Your task to perform on an android device: open device folders in google photos Image 0: 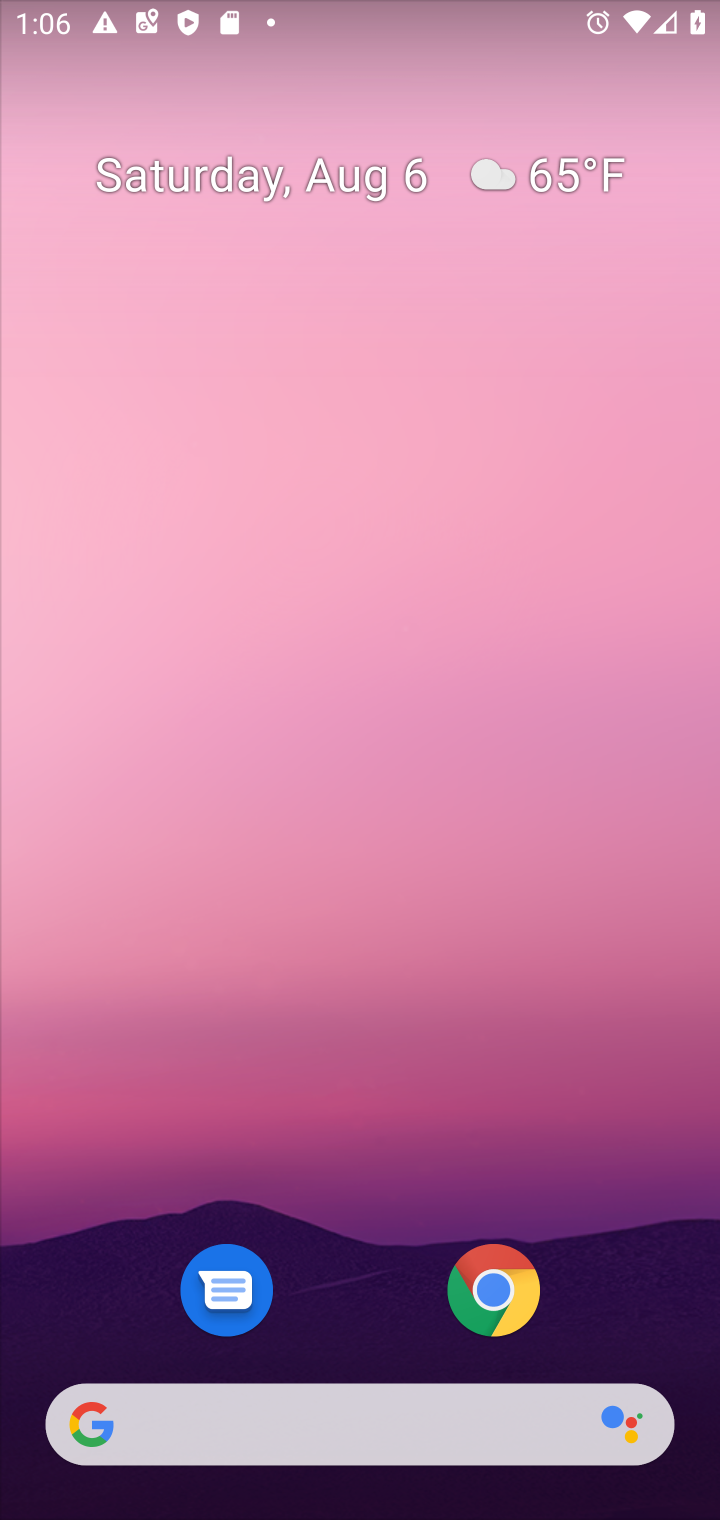
Step 0: press home button
Your task to perform on an android device: open device folders in google photos Image 1: 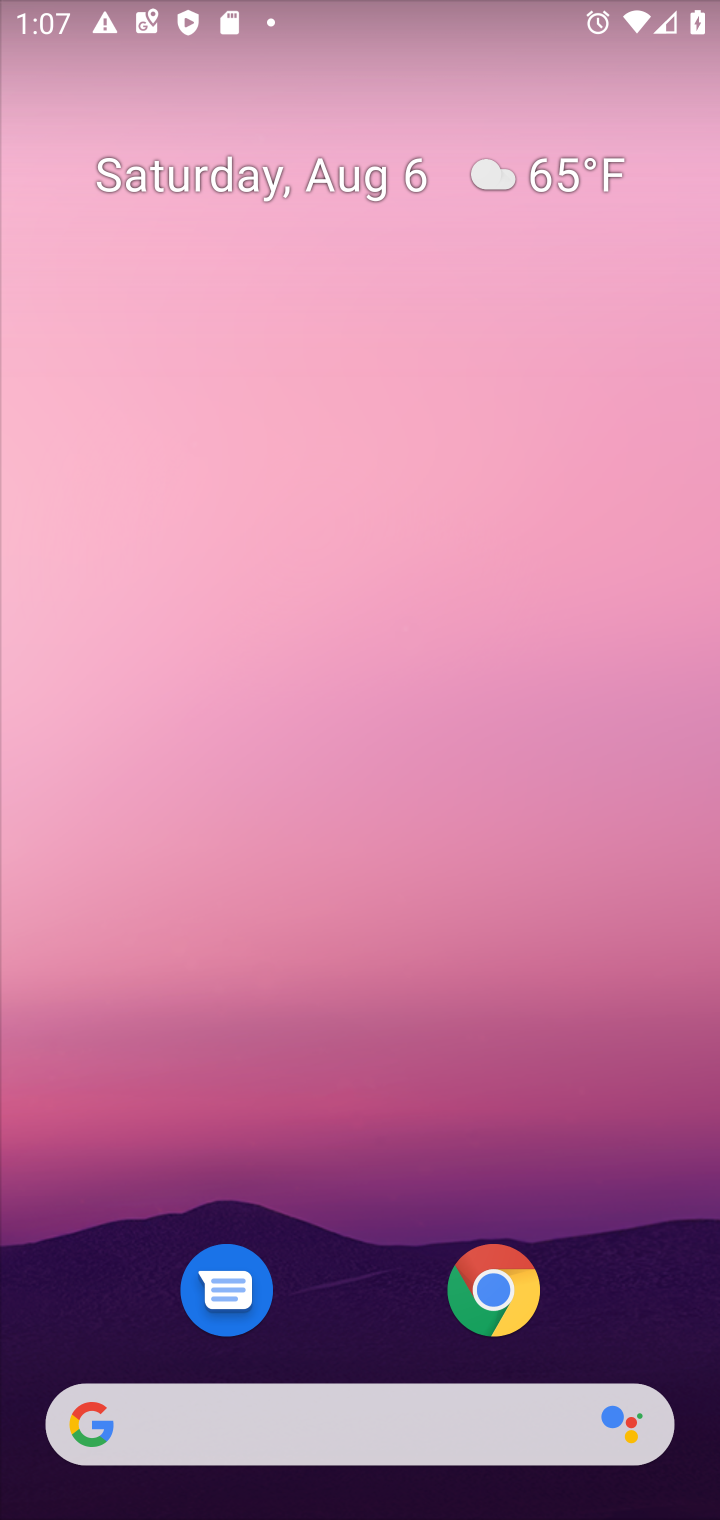
Step 1: drag from (333, 1333) to (471, 64)
Your task to perform on an android device: open device folders in google photos Image 2: 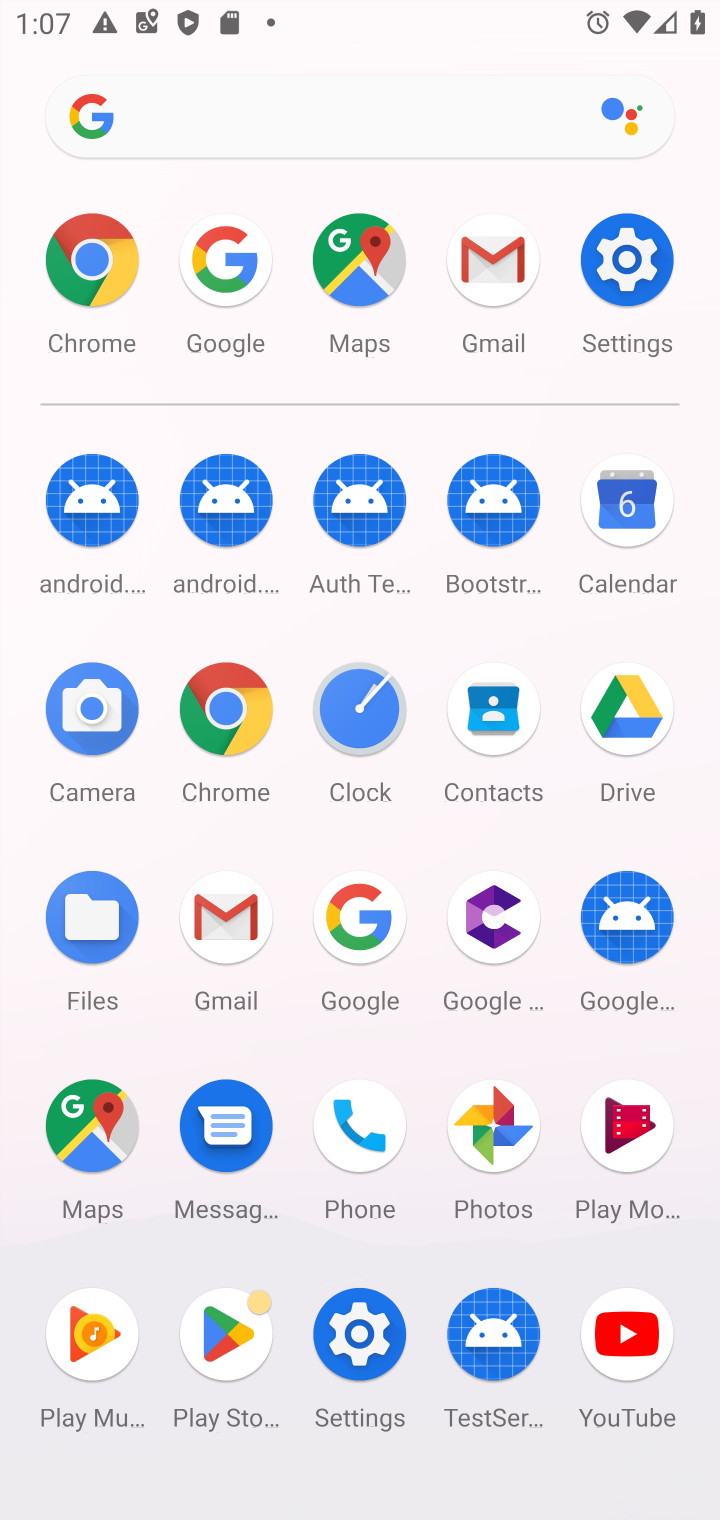
Step 2: click (474, 1109)
Your task to perform on an android device: open device folders in google photos Image 3: 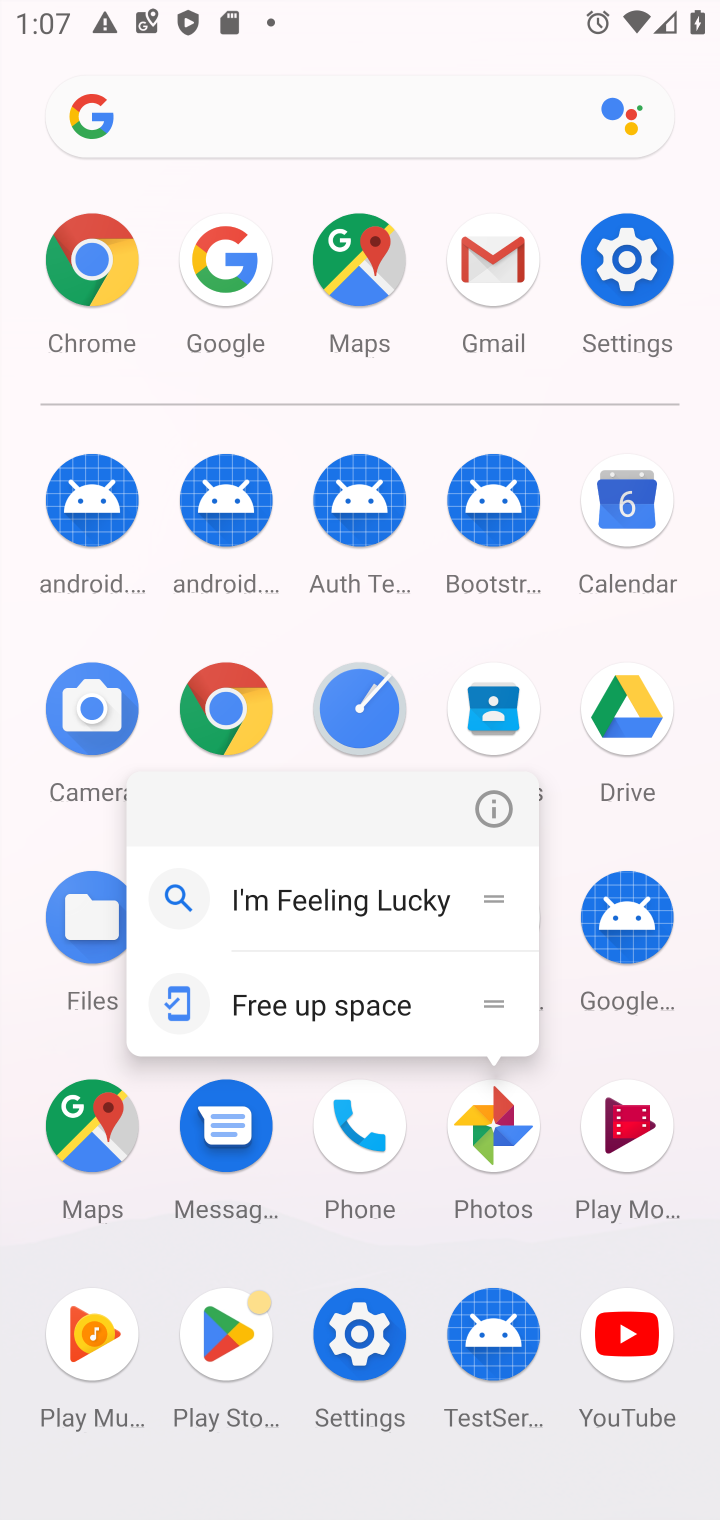
Step 3: click (495, 1107)
Your task to perform on an android device: open device folders in google photos Image 4: 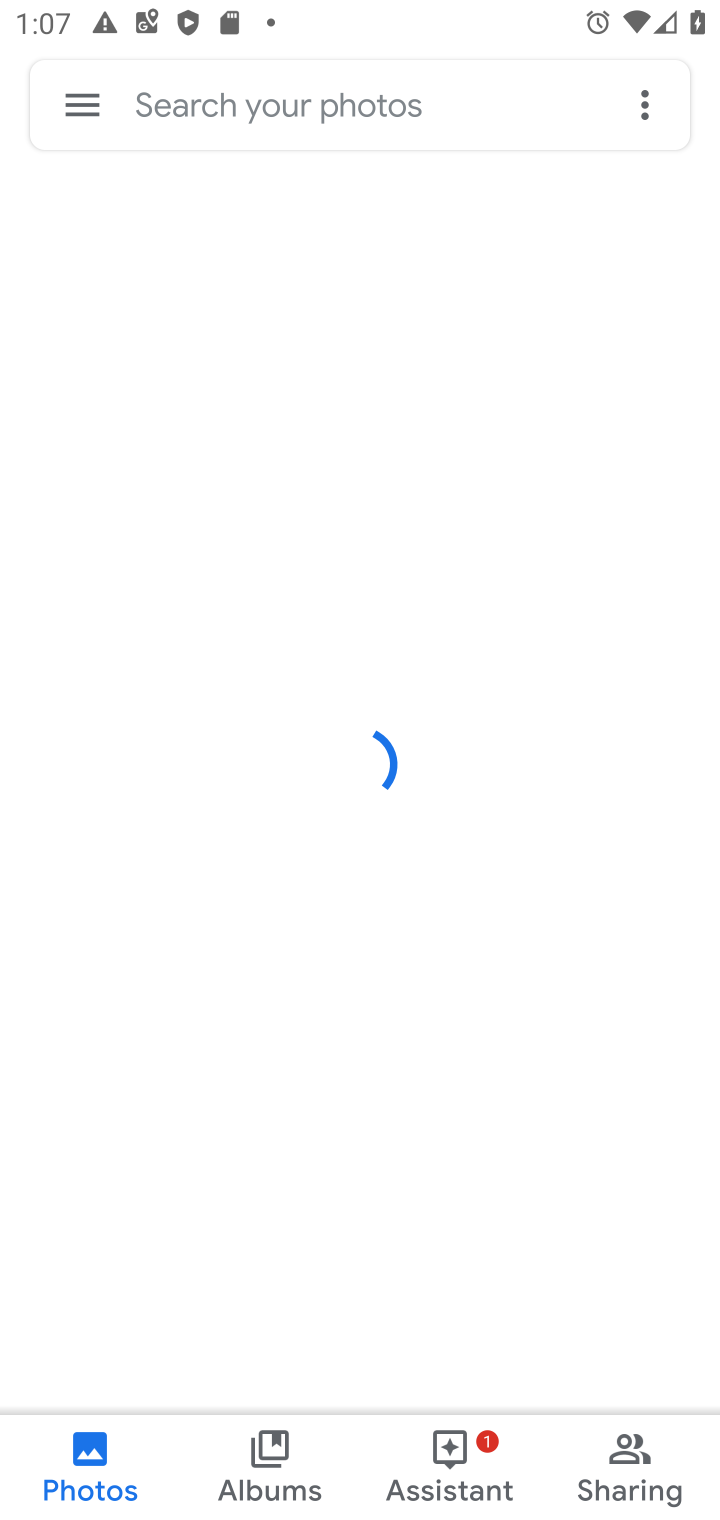
Step 4: click (77, 98)
Your task to perform on an android device: open device folders in google photos Image 5: 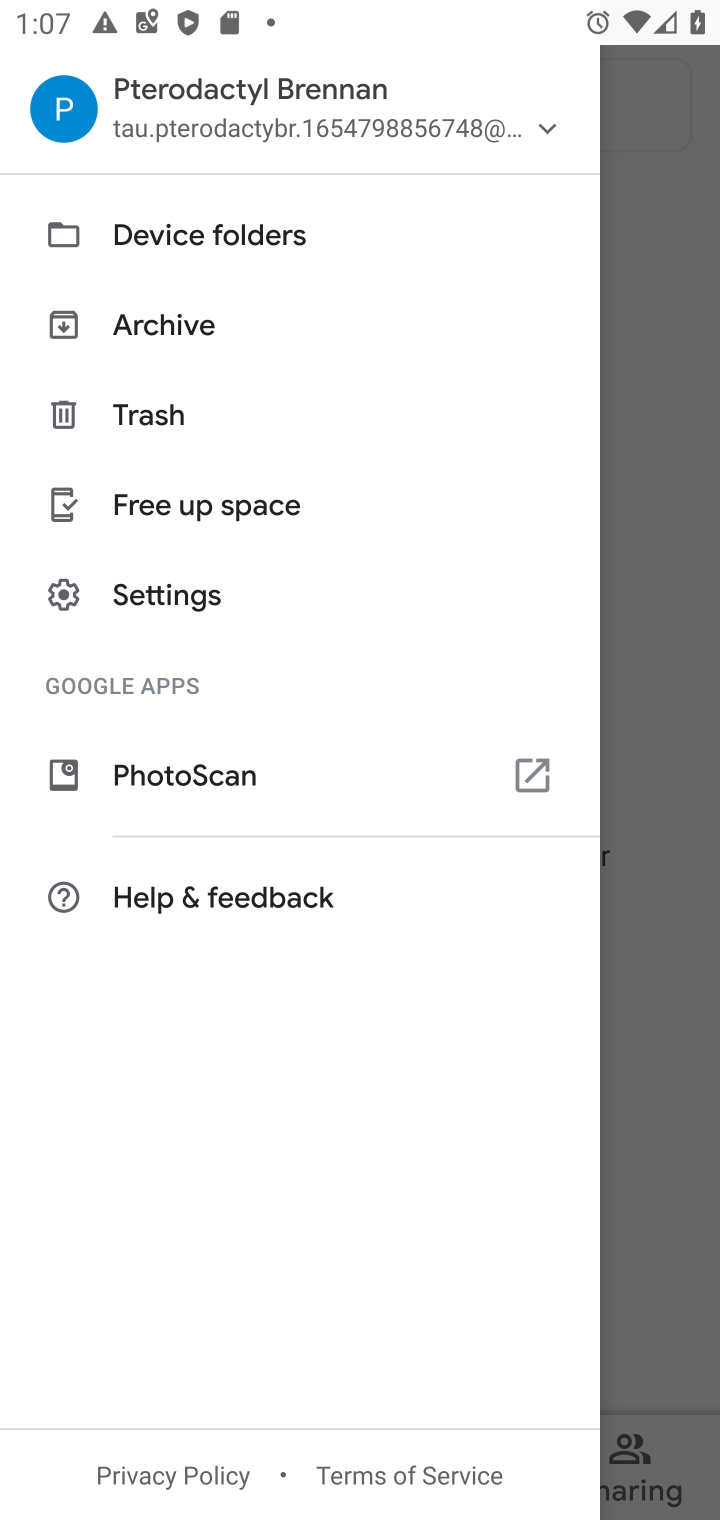
Step 5: click (211, 239)
Your task to perform on an android device: open device folders in google photos Image 6: 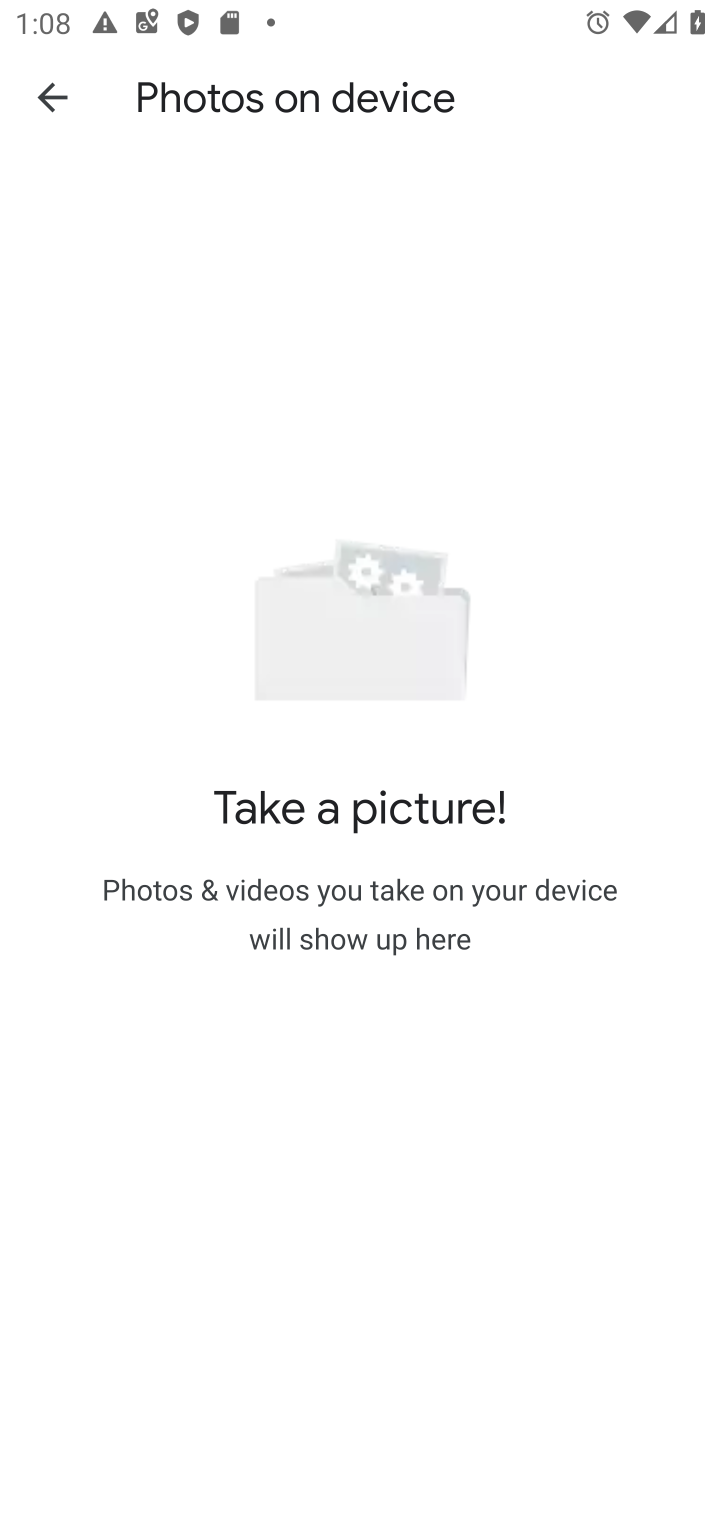
Step 6: task complete